Your task to perform on an android device: find which apps use the phone's location Image 0: 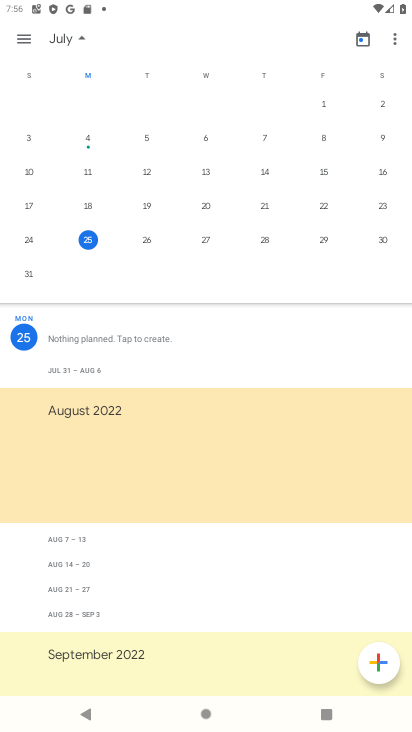
Step 0: press home button
Your task to perform on an android device: find which apps use the phone's location Image 1: 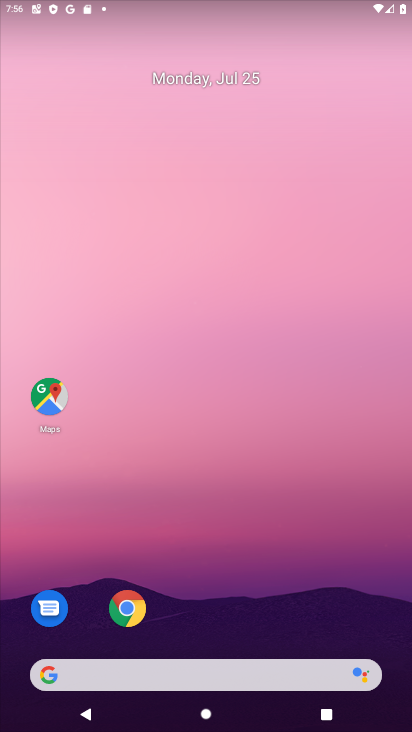
Step 1: drag from (293, 603) to (313, 35)
Your task to perform on an android device: find which apps use the phone's location Image 2: 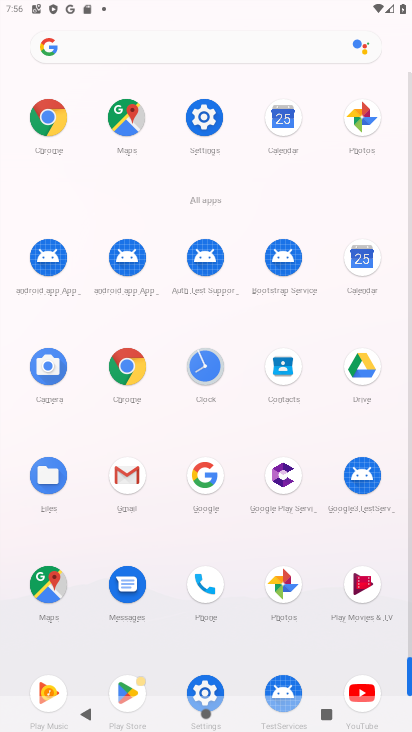
Step 2: click (212, 139)
Your task to perform on an android device: find which apps use the phone's location Image 3: 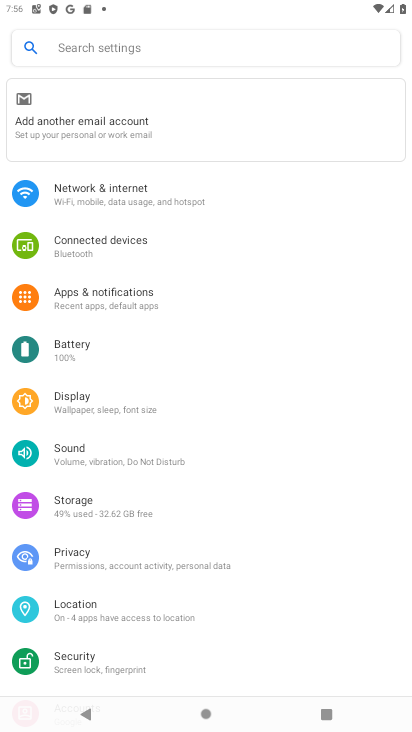
Step 3: click (92, 611)
Your task to perform on an android device: find which apps use the phone's location Image 4: 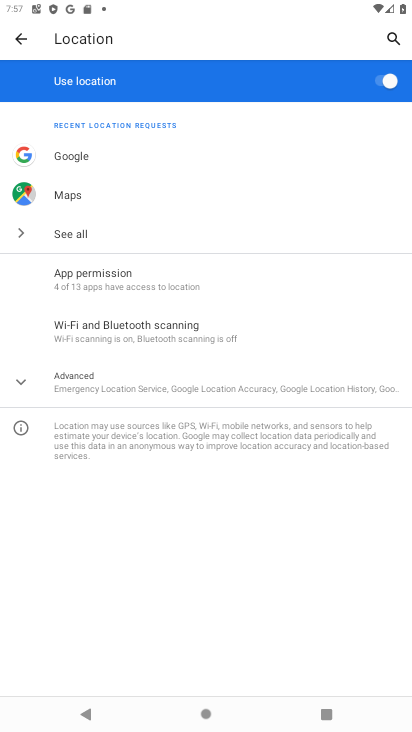
Step 4: click (135, 284)
Your task to perform on an android device: find which apps use the phone's location Image 5: 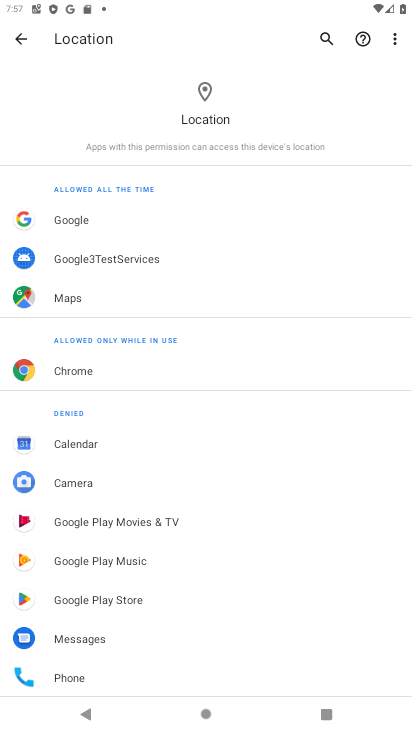
Step 5: task complete